Your task to perform on an android device: View the shopping cart on bestbuy.com. Image 0: 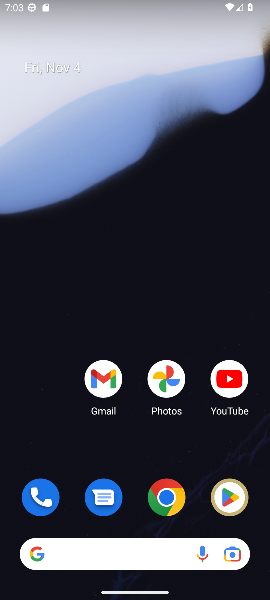
Step 0: click (172, 502)
Your task to perform on an android device: View the shopping cart on bestbuy.com. Image 1: 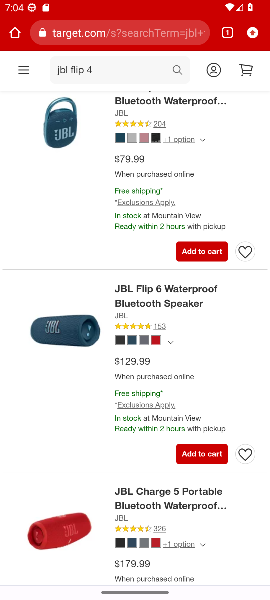
Step 1: click (107, 33)
Your task to perform on an android device: View the shopping cart on bestbuy.com. Image 2: 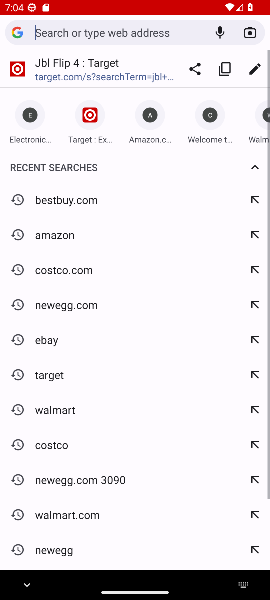
Step 2: click (79, 204)
Your task to perform on an android device: View the shopping cart on bestbuy.com. Image 3: 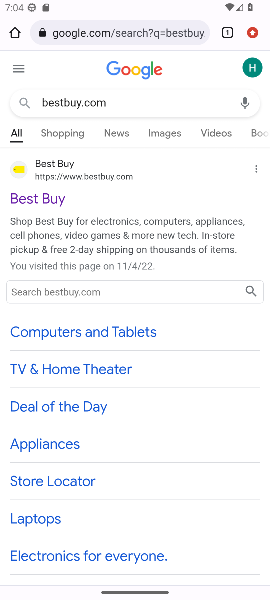
Step 3: click (48, 202)
Your task to perform on an android device: View the shopping cart on bestbuy.com. Image 4: 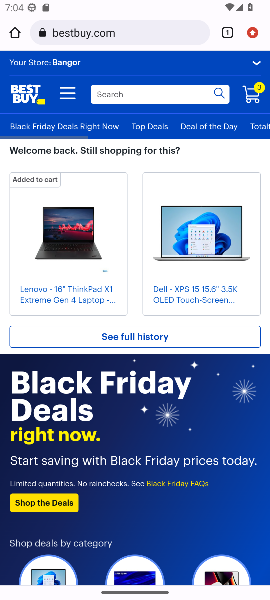
Step 4: click (249, 94)
Your task to perform on an android device: View the shopping cart on bestbuy.com. Image 5: 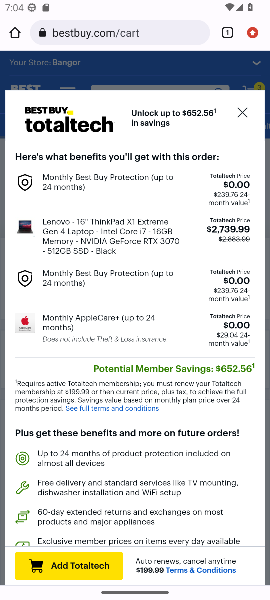
Step 5: click (243, 115)
Your task to perform on an android device: View the shopping cart on bestbuy.com. Image 6: 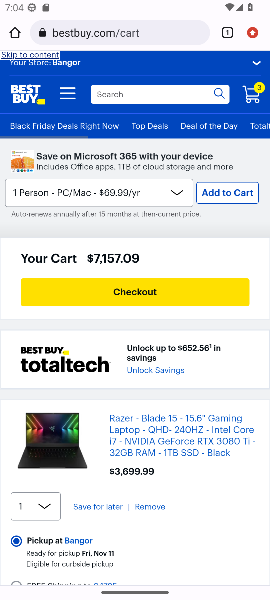
Step 6: task complete